Your task to perform on an android device: Go to Google Image 0: 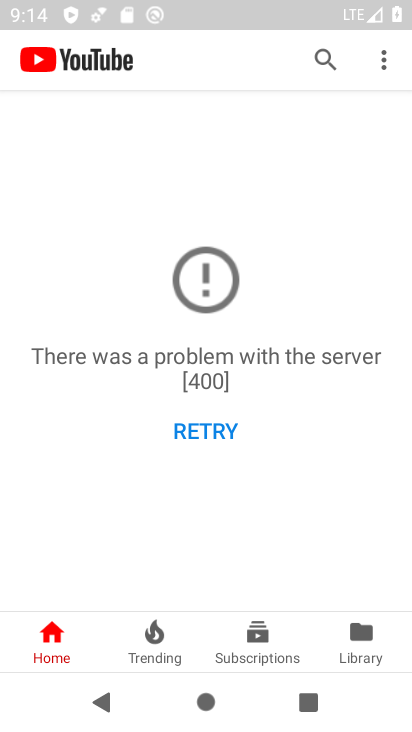
Step 0: press back button
Your task to perform on an android device: Go to Google Image 1: 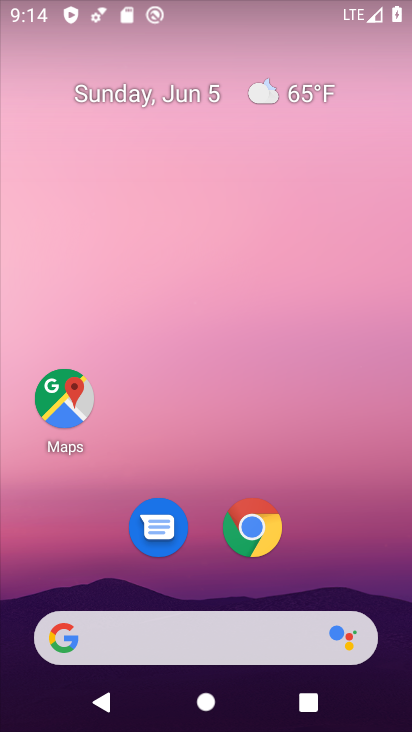
Step 1: drag from (204, 544) to (258, 99)
Your task to perform on an android device: Go to Google Image 2: 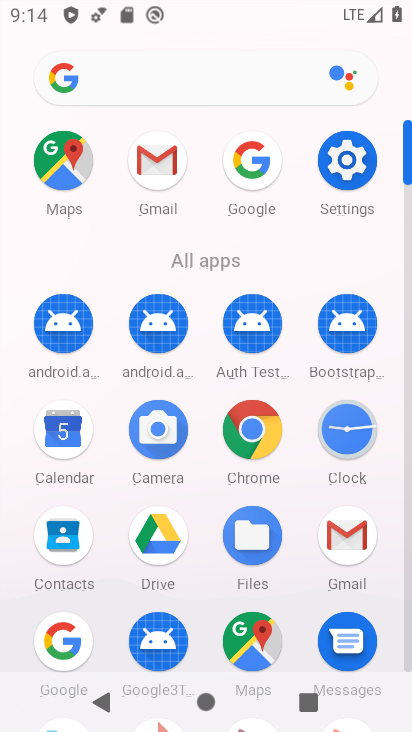
Step 2: click (53, 647)
Your task to perform on an android device: Go to Google Image 3: 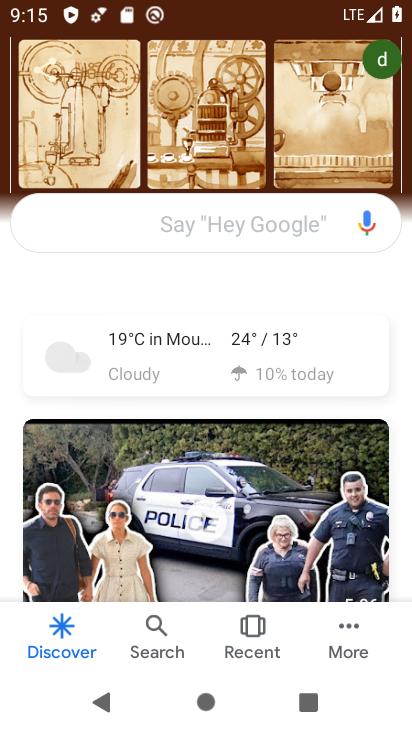
Step 3: task complete